Your task to perform on an android device: delete a single message in the gmail app Image 0: 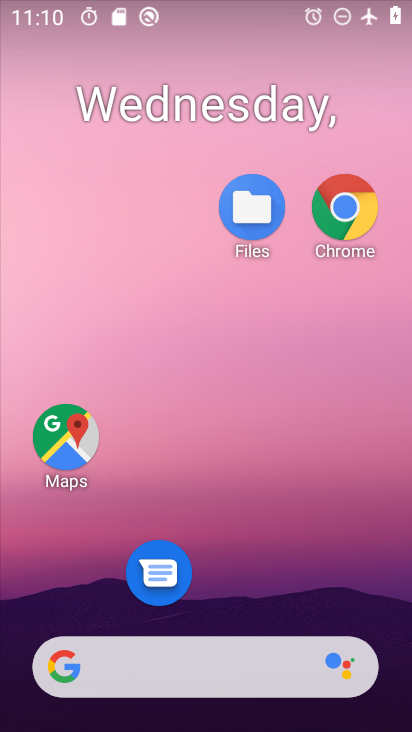
Step 0: drag from (274, 662) to (358, 280)
Your task to perform on an android device: delete a single message in the gmail app Image 1: 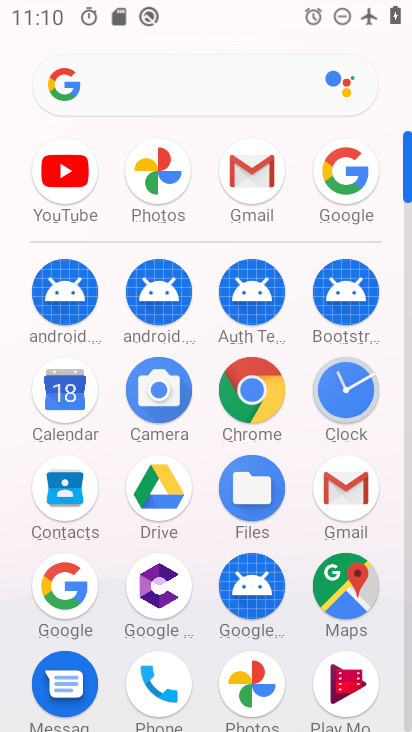
Step 1: drag from (312, 527) to (363, 318)
Your task to perform on an android device: delete a single message in the gmail app Image 2: 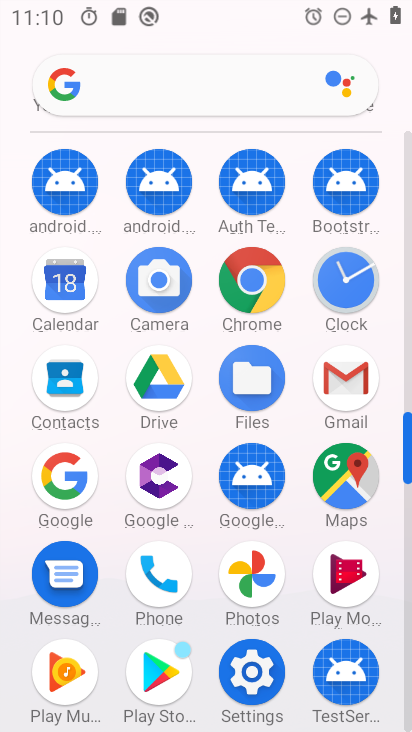
Step 2: click (363, 387)
Your task to perform on an android device: delete a single message in the gmail app Image 3: 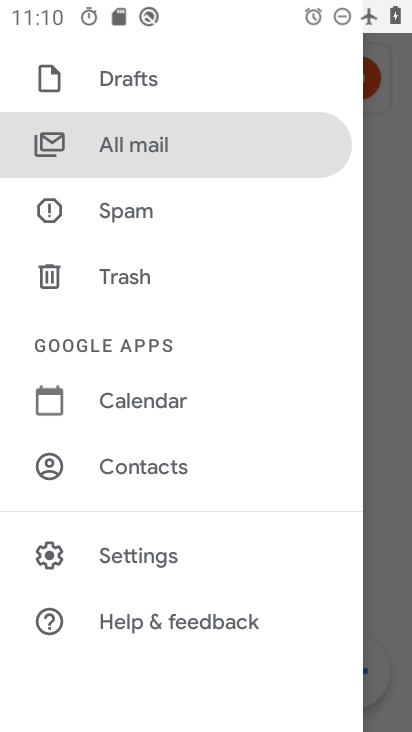
Step 3: click (229, 169)
Your task to perform on an android device: delete a single message in the gmail app Image 4: 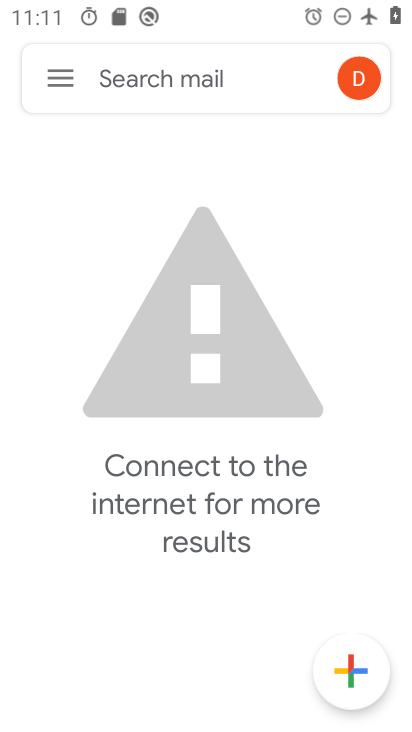
Step 4: task complete